Your task to perform on an android device: turn on wifi Image 0: 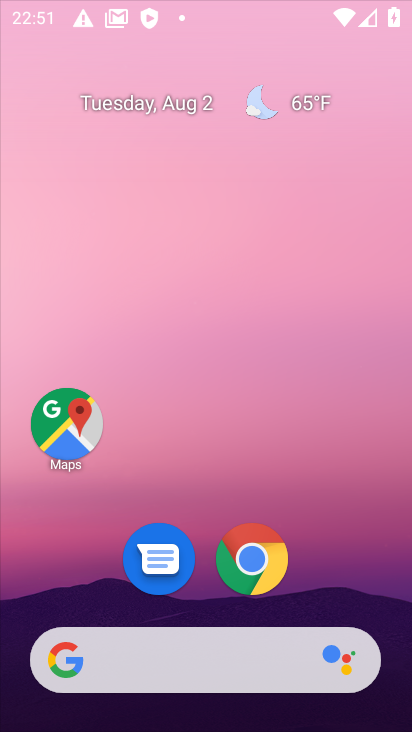
Step 0: click (248, 46)
Your task to perform on an android device: turn on wifi Image 1: 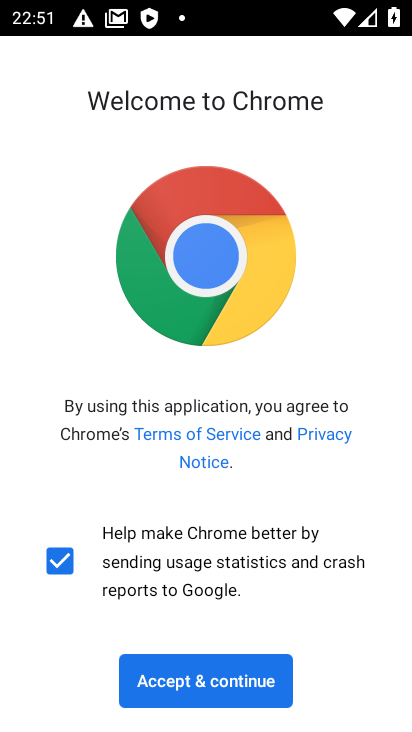
Step 1: press back button
Your task to perform on an android device: turn on wifi Image 2: 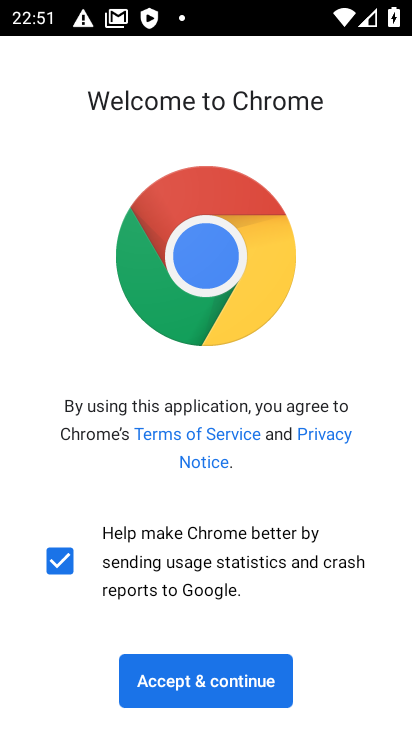
Step 2: press back button
Your task to perform on an android device: turn on wifi Image 3: 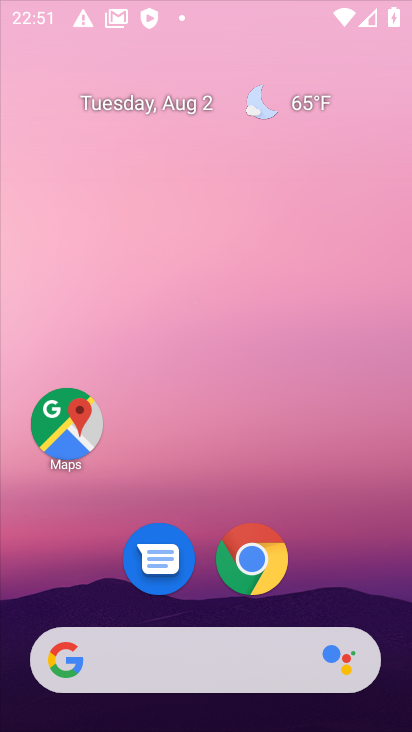
Step 3: press back button
Your task to perform on an android device: turn on wifi Image 4: 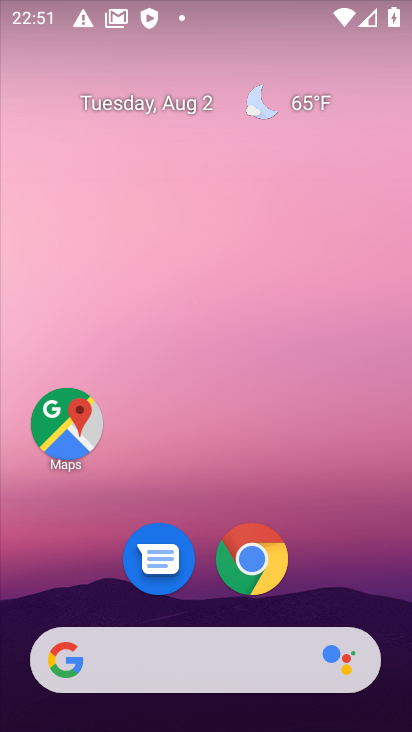
Step 4: drag from (225, 673) to (153, 234)
Your task to perform on an android device: turn on wifi Image 5: 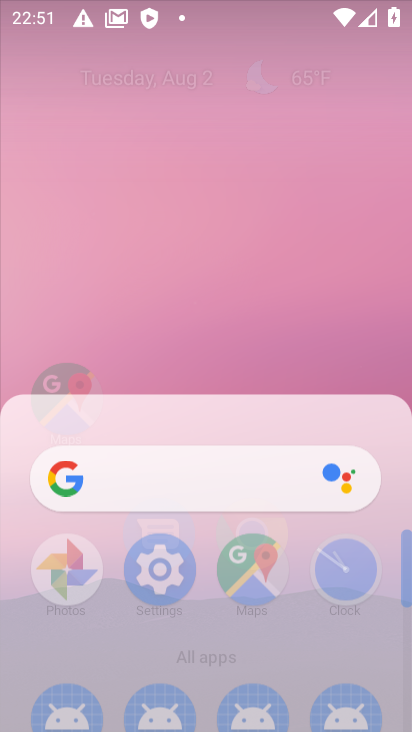
Step 5: drag from (197, 566) to (195, 323)
Your task to perform on an android device: turn on wifi Image 6: 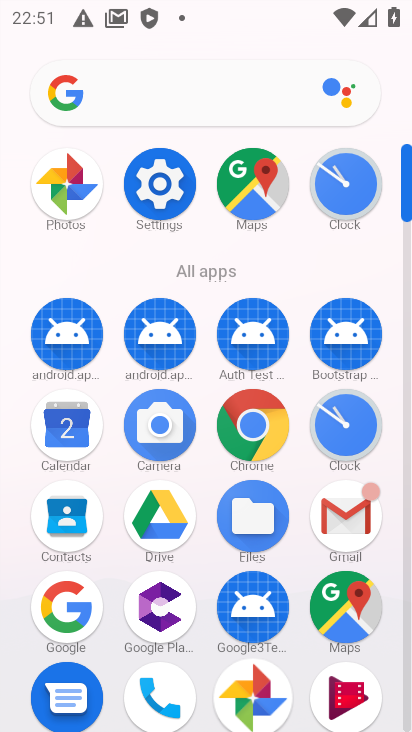
Step 6: click (157, 186)
Your task to perform on an android device: turn on wifi Image 7: 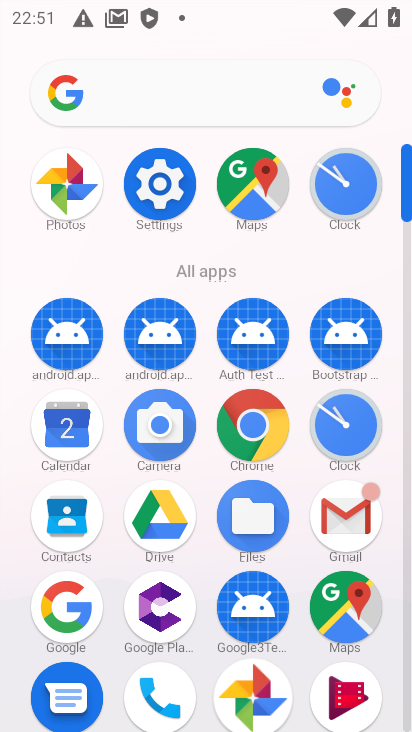
Step 7: click (157, 186)
Your task to perform on an android device: turn on wifi Image 8: 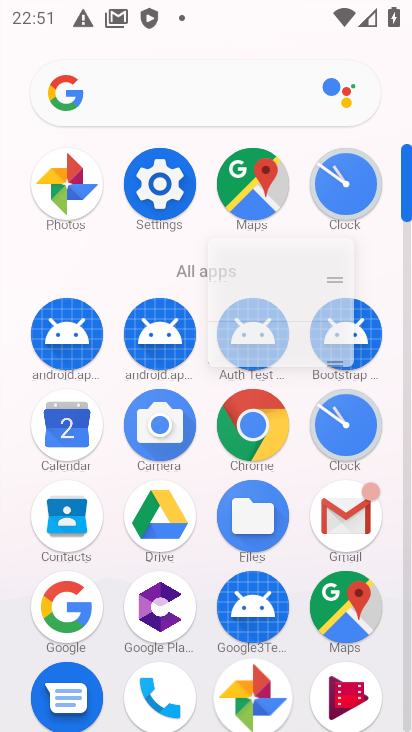
Step 8: click (158, 186)
Your task to perform on an android device: turn on wifi Image 9: 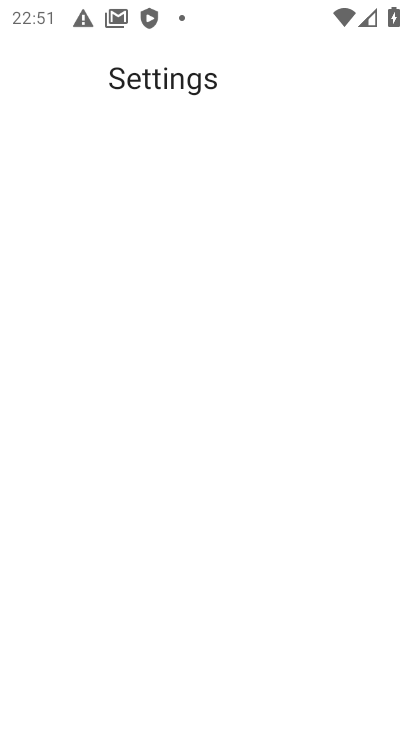
Step 9: click (162, 186)
Your task to perform on an android device: turn on wifi Image 10: 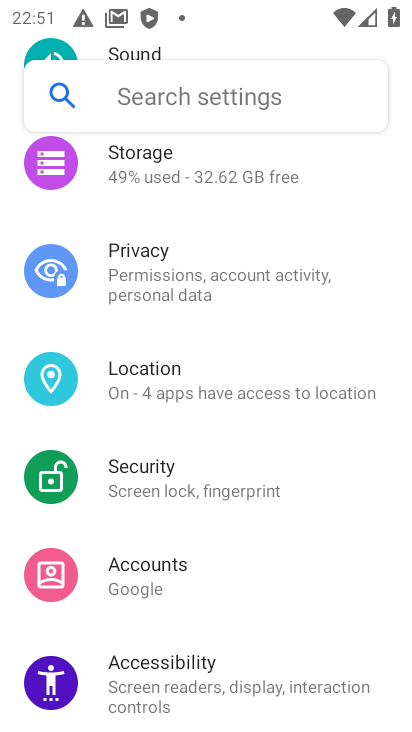
Step 10: drag from (159, 346) to (158, 510)
Your task to perform on an android device: turn on wifi Image 11: 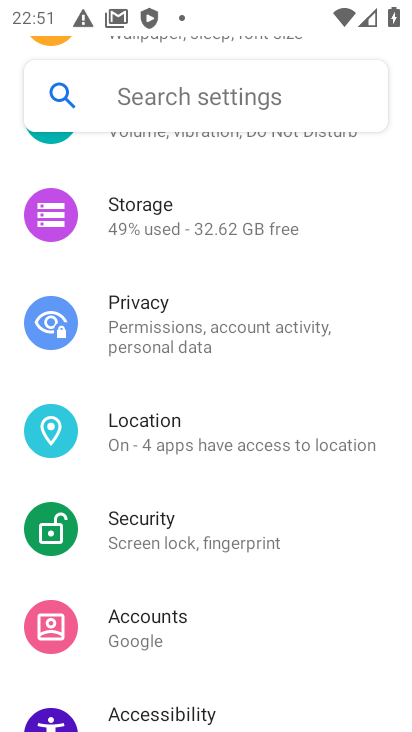
Step 11: drag from (145, 420) to (187, 596)
Your task to perform on an android device: turn on wifi Image 12: 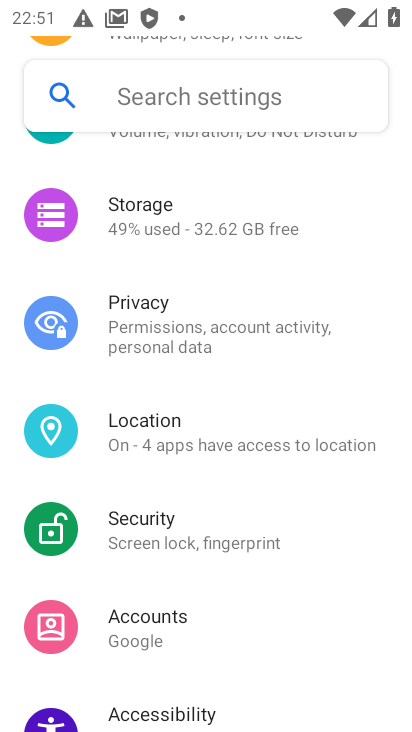
Step 12: drag from (213, 483) to (221, 545)
Your task to perform on an android device: turn on wifi Image 13: 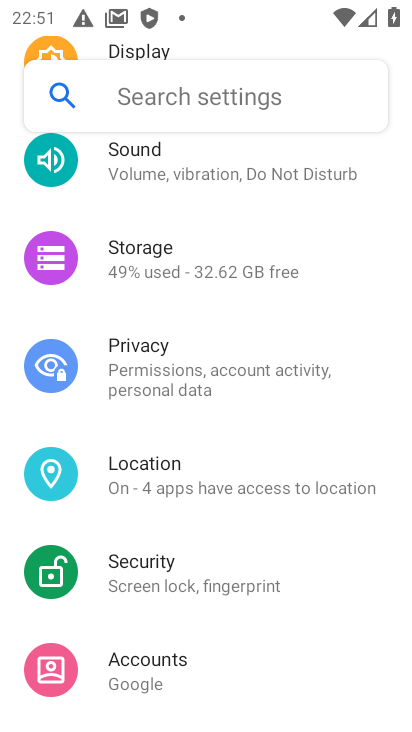
Step 13: drag from (191, 297) to (197, 568)
Your task to perform on an android device: turn on wifi Image 14: 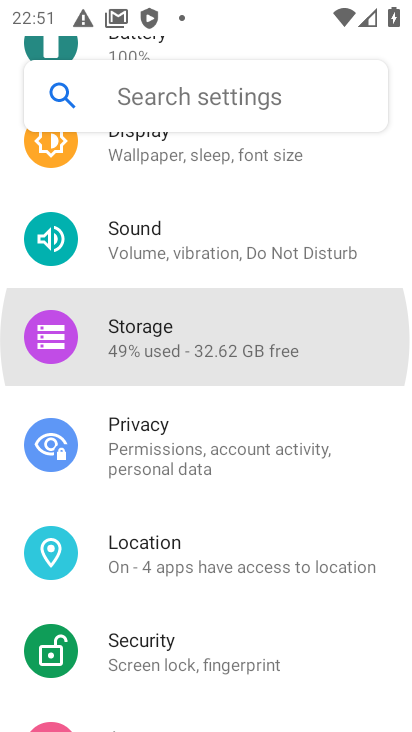
Step 14: drag from (134, 240) to (139, 594)
Your task to perform on an android device: turn on wifi Image 15: 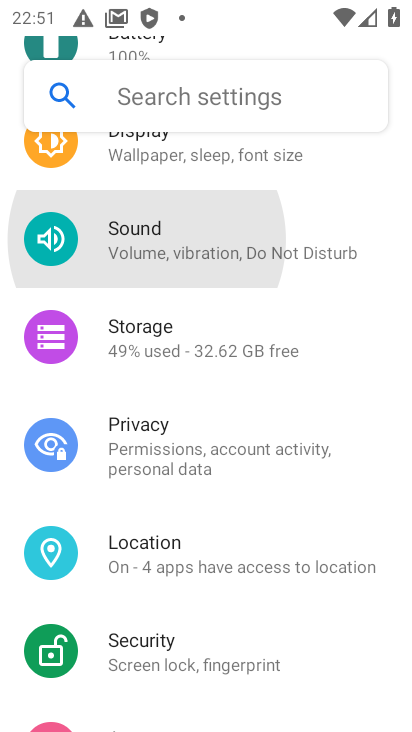
Step 15: drag from (159, 290) to (207, 576)
Your task to perform on an android device: turn on wifi Image 16: 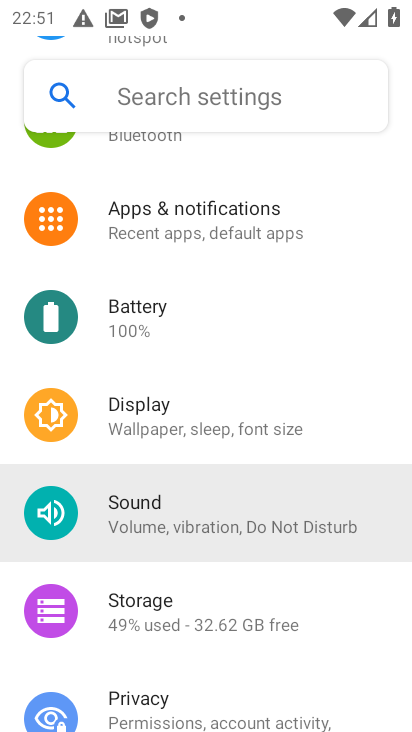
Step 16: drag from (189, 284) to (189, 525)
Your task to perform on an android device: turn on wifi Image 17: 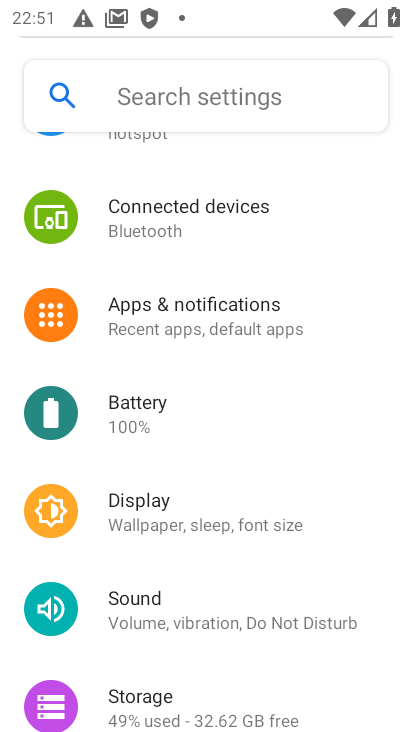
Step 17: drag from (133, 238) to (168, 479)
Your task to perform on an android device: turn on wifi Image 18: 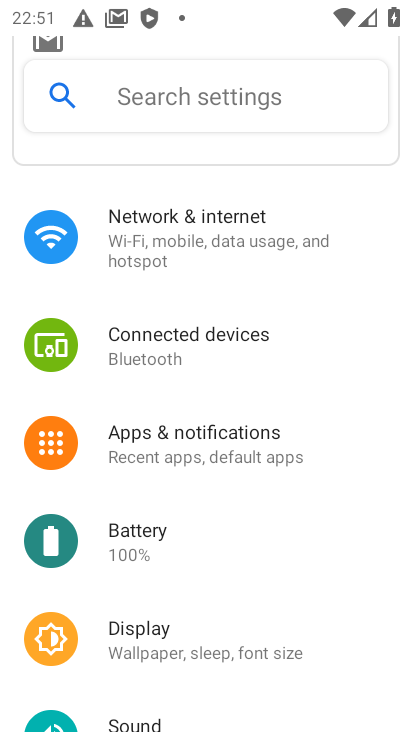
Step 18: drag from (152, 203) to (139, 586)
Your task to perform on an android device: turn on wifi Image 19: 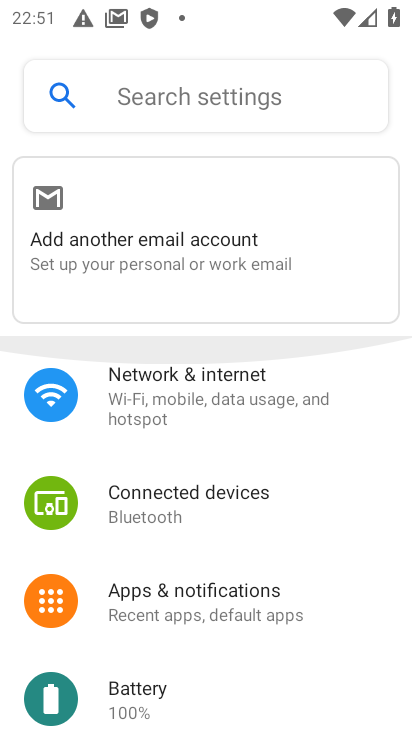
Step 19: drag from (103, 331) to (120, 561)
Your task to perform on an android device: turn on wifi Image 20: 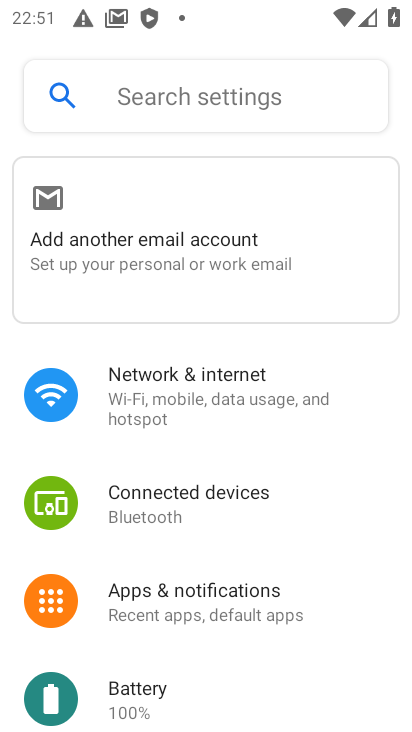
Step 20: click (180, 392)
Your task to perform on an android device: turn on wifi Image 21: 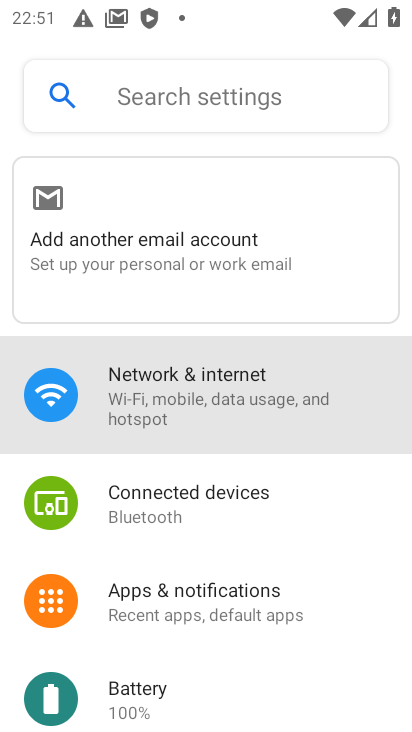
Step 21: click (180, 391)
Your task to perform on an android device: turn on wifi Image 22: 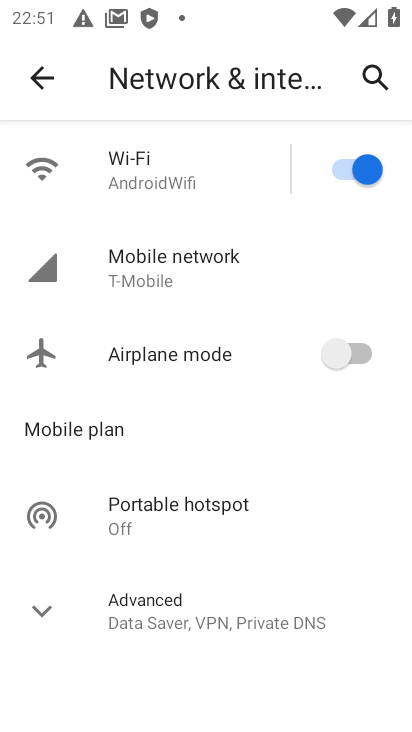
Step 22: task complete